Your task to perform on an android device: Show me the alarms in the clock app Image 0: 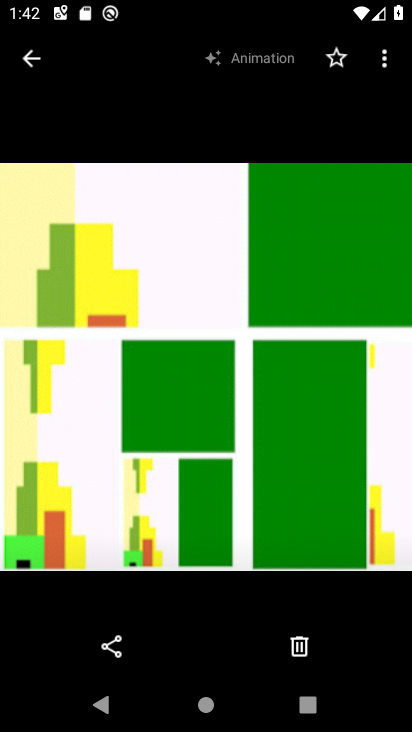
Step 0: press home button
Your task to perform on an android device: Show me the alarms in the clock app Image 1: 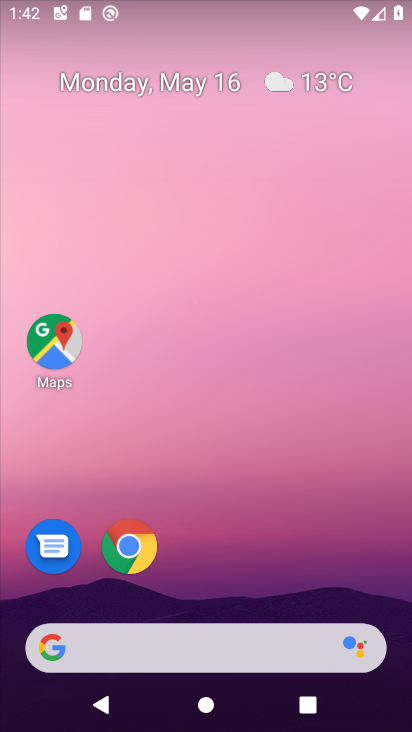
Step 1: drag from (225, 724) to (188, 304)
Your task to perform on an android device: Show me the alarms in the clock app Image 2: 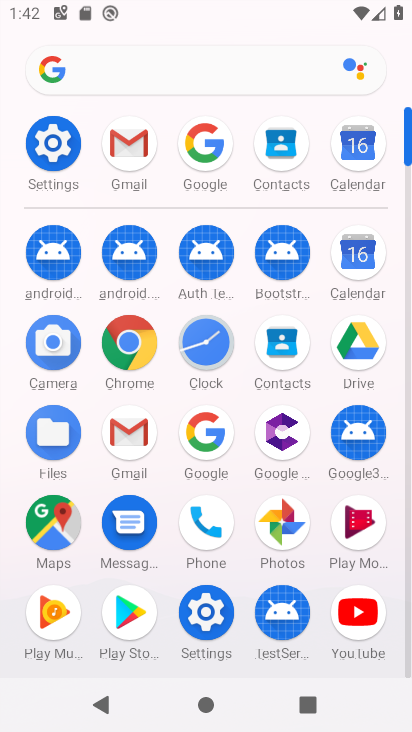
Step 2: click (211, 343)
Your task to perform on an android device: Show me the alarms in the clock app Image 3: 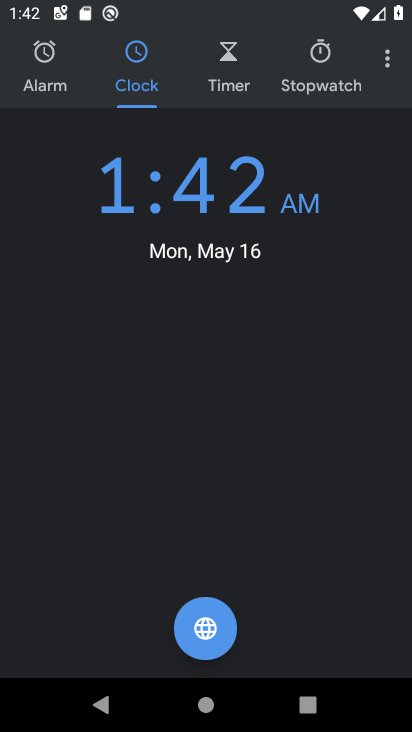
Step 3: click (42, 54)
Your task to perform on an android device: Show me the alarms in the clock app Image 4: 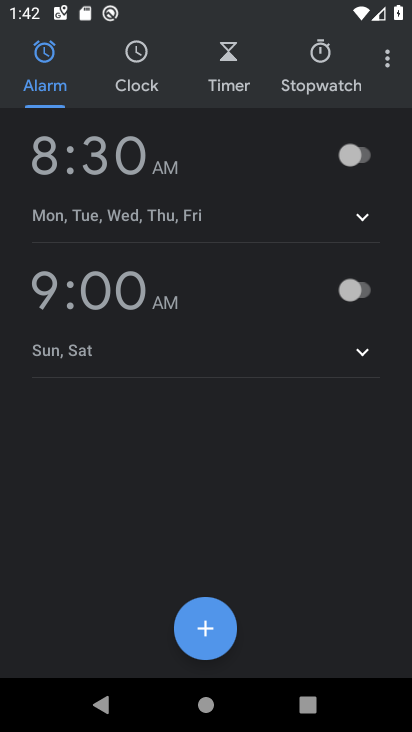
Step 4: task complete